Your task to perform on an android device: Go to battery settings Image 0: 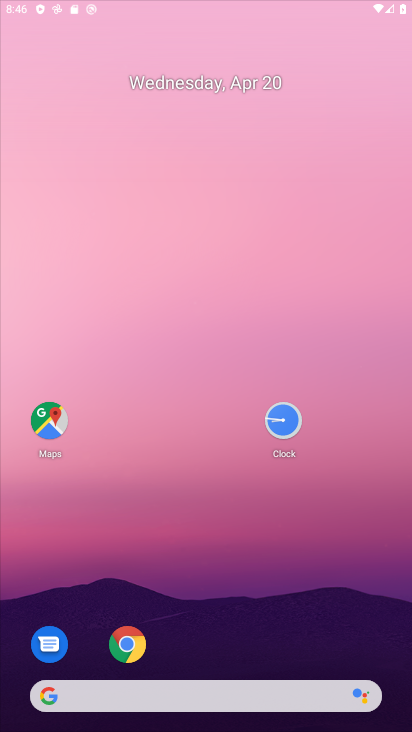
Step 0: click (293, 0)
Your task to perform on an android device: Go to battery settings Image 1: 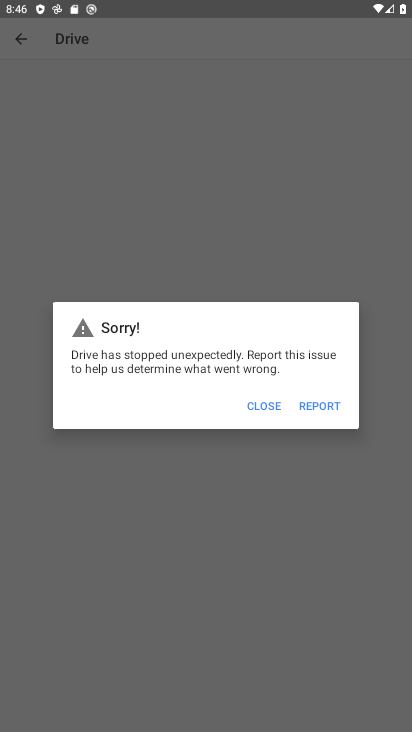
Step 1: click (266, 406)
Your task to perform on an android device: Go to battery settings Image 2: 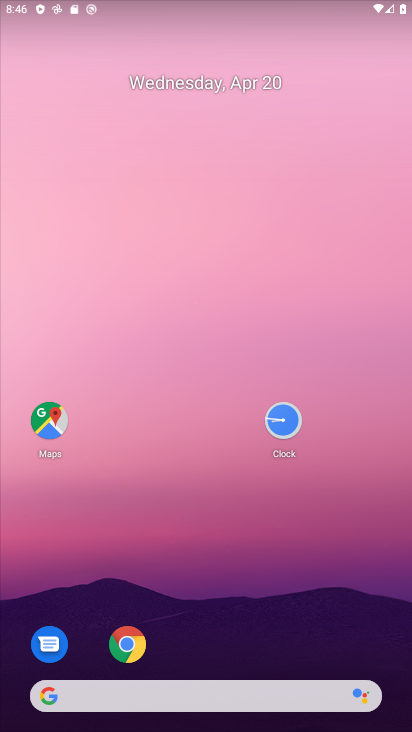
Step 2: drag from (239, 661) to (295, 239)
Your task to perform on an android device: Go to battery settings Image 3: 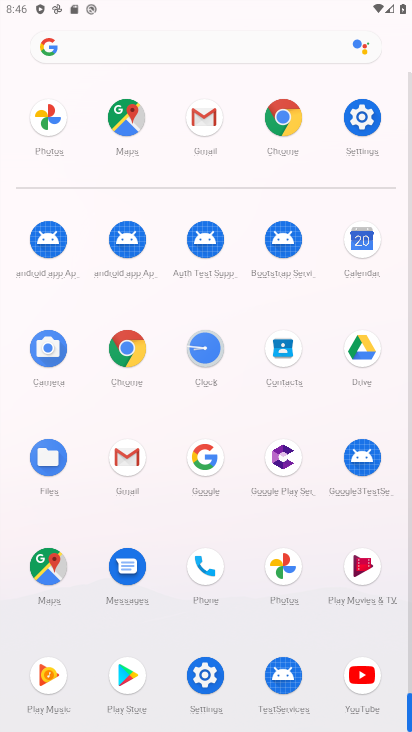
Step 3: click (206, 670)
Your task to perform on an android device: Go to battery settings Image 4: 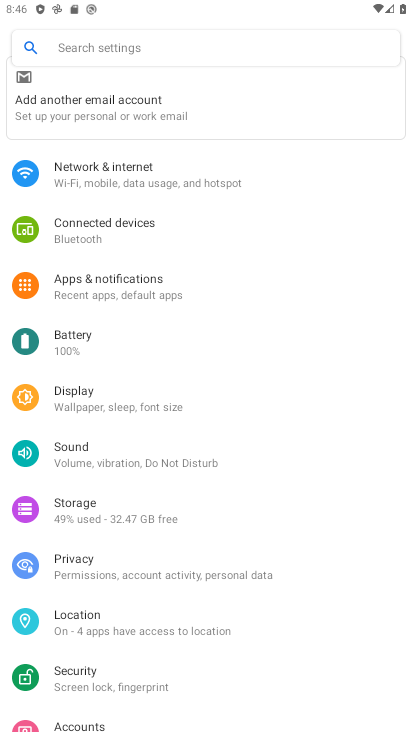
Step 4: click (104, 344)
Your task to perform on an android device: Go to battery settings Image 5: 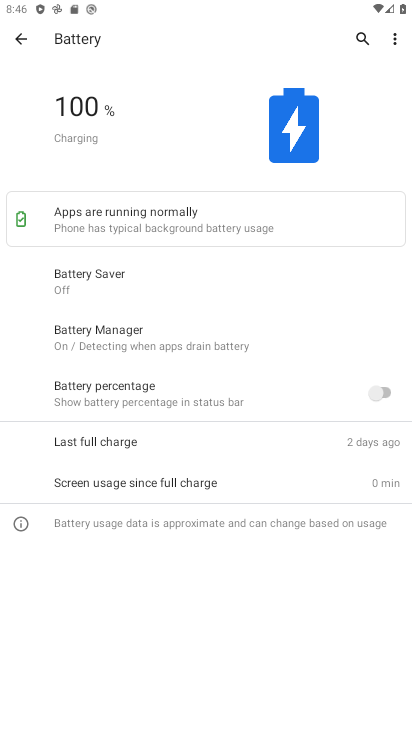
Step 5: task complete